Your task to perform on an android device: Go to CNN.com Image 0: 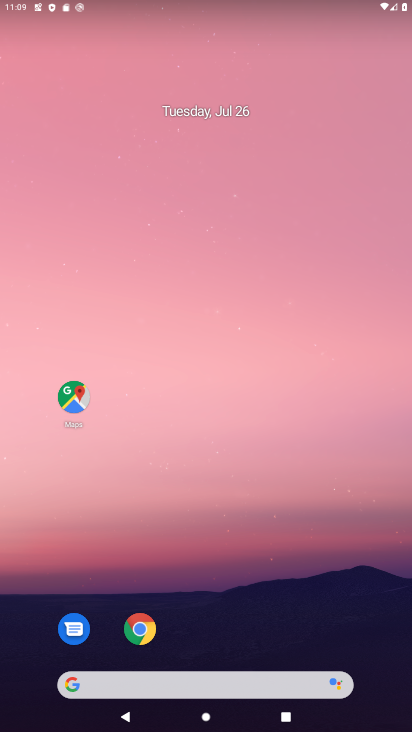
Step 0: click (212, 693)
Your task to perform on an android device: Go to CNN.com Image 1: 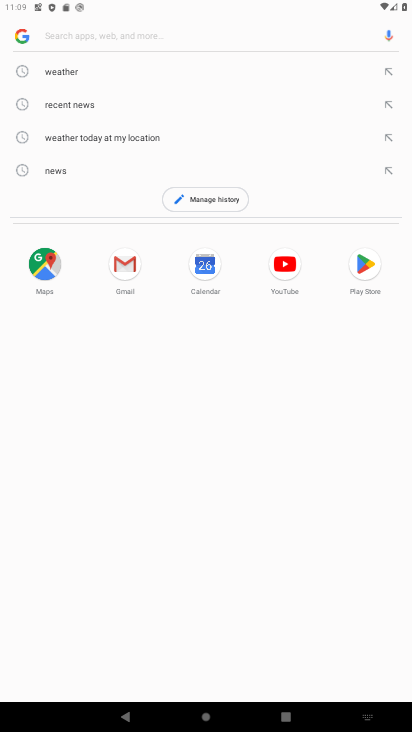
Step 1: type "cnn.com"
Your task to perform on an android device: Go to CNN.com Image 2: 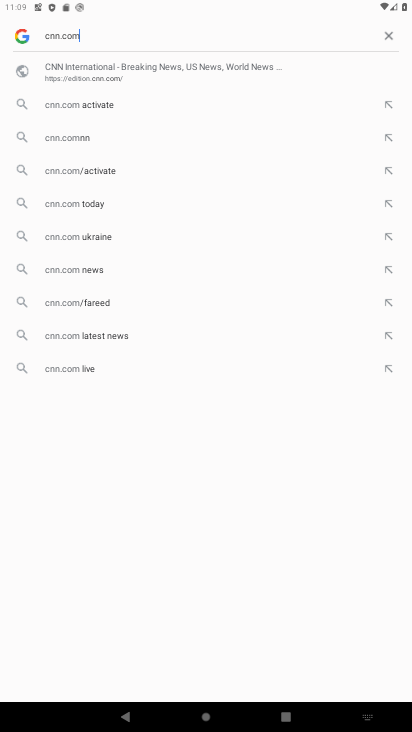
Step 2: click (123, 64)
Your task to perform on an android device: Go to CNN.com Image 3: 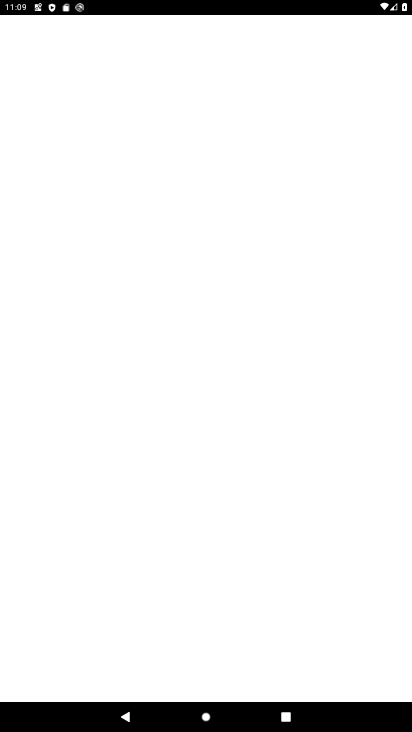
Step 3: task complete